Your task to perform on an android device: Open settings on Google Maps Image 0: 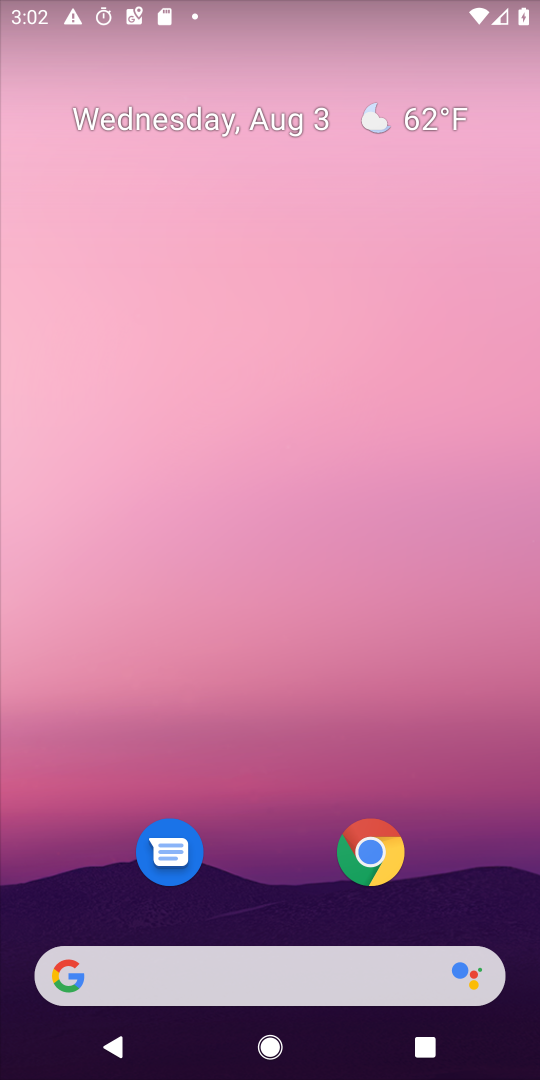
Step 0: drag from (476, 881) to (265, 46)
Your task to perform on an android device: Open settings on Google Maps Image 1: 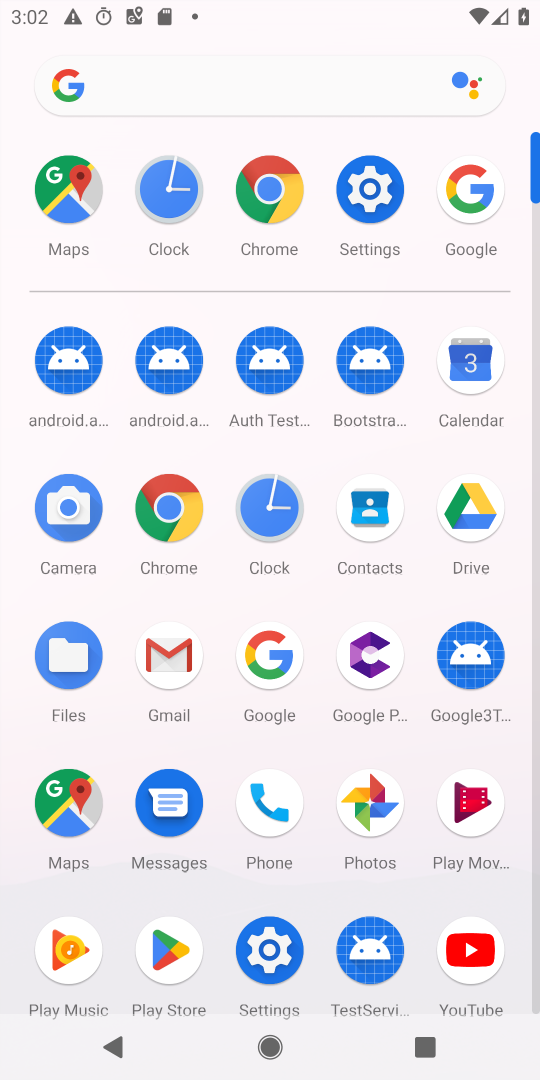
Step 1: click (59, 825)
Your task to perform on an android device: Open settings on Google Maps Image 2: 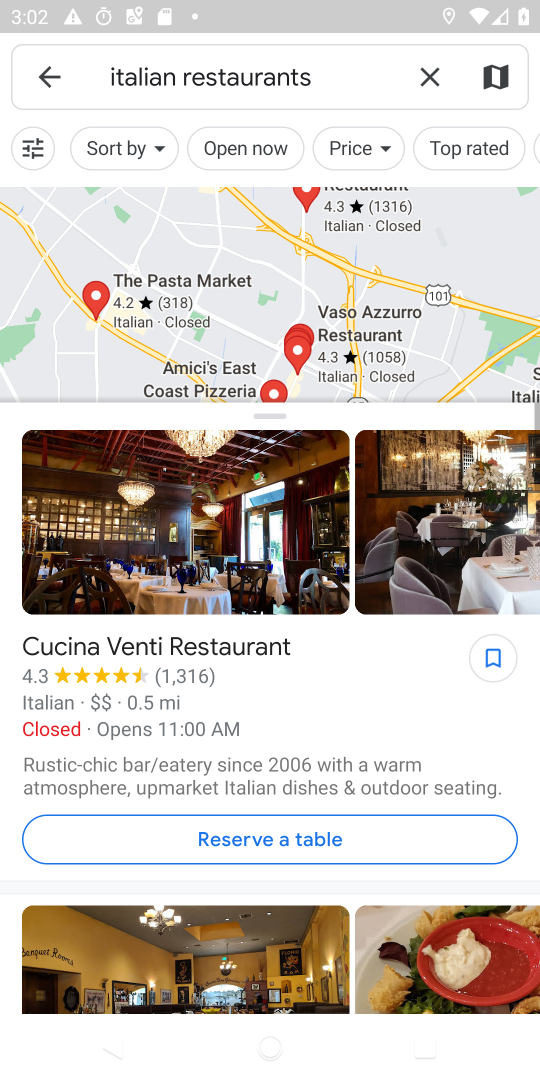
Step 2: press back button
Your task to perform on an android device: Open settings on Google Maps Image 3: 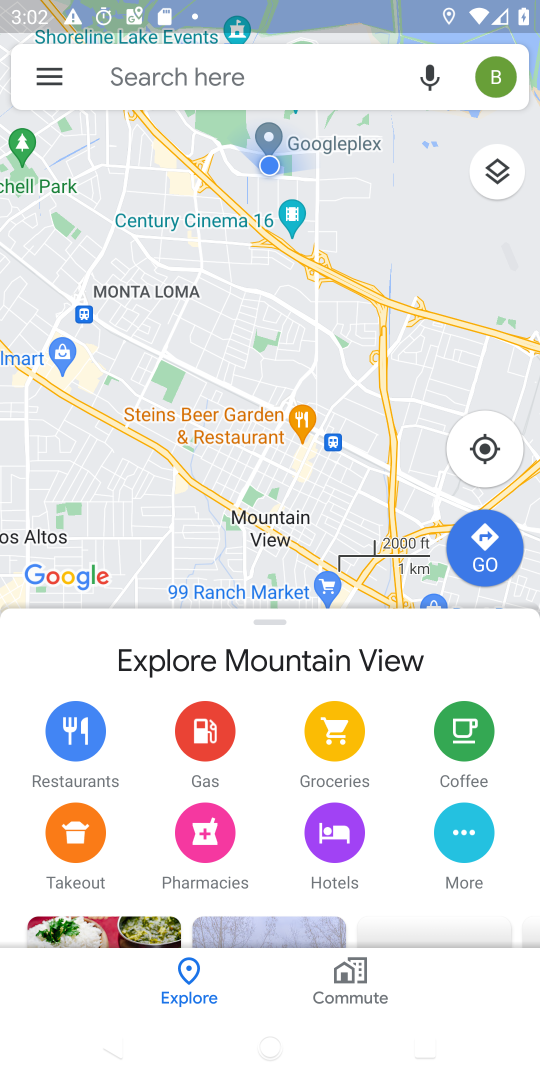
Step 3: click (42, 79)
Your task to perform on an android device: Open settings on Google Maps Image 4: 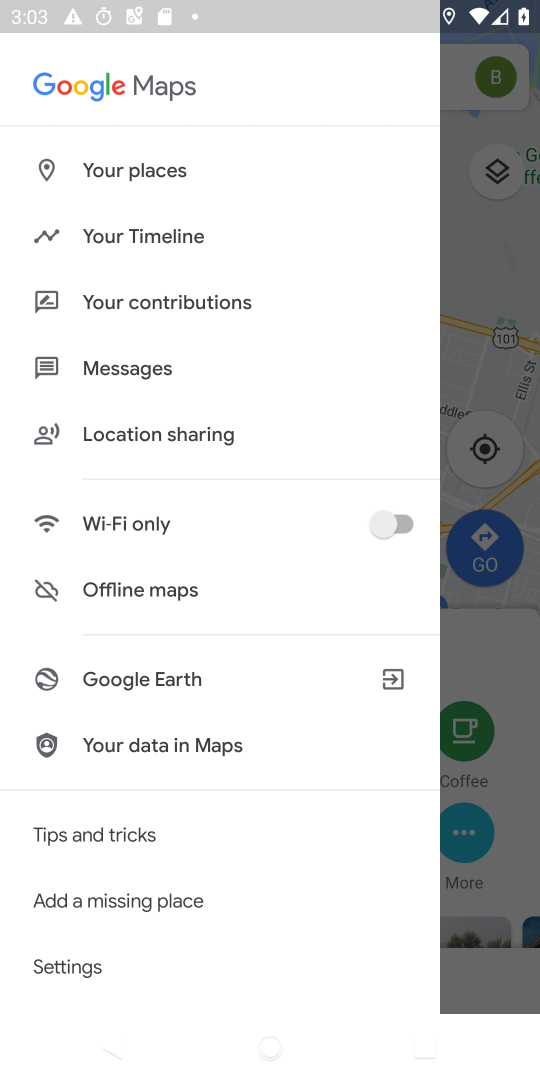
Step 4: click (96, 963)
Your task to perform on an android device: Open settings on Google Maps Image 5: 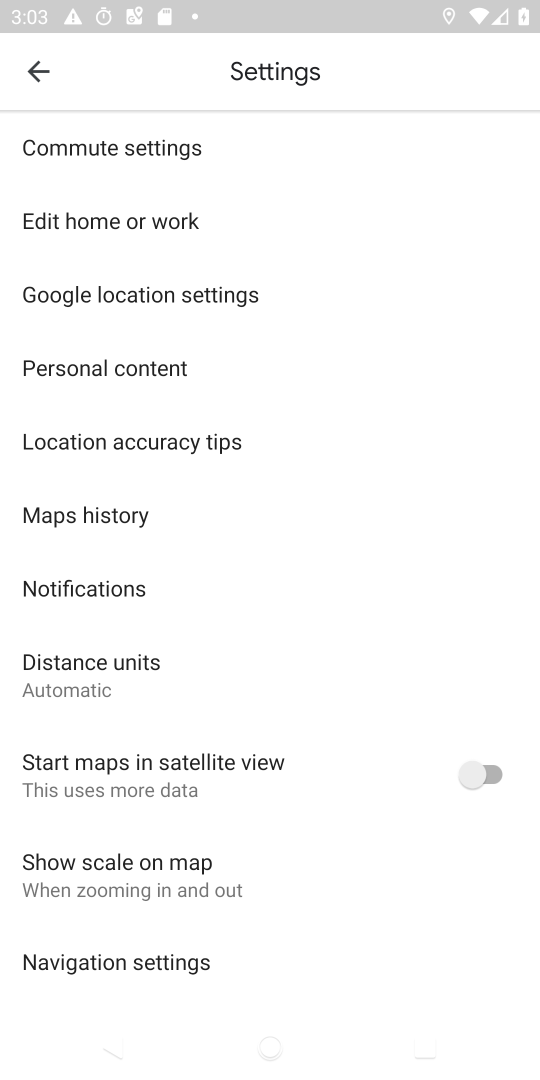
Step 5: task complete